Your task to perform on an android device: turn pop-ups off in chrome Image 0: 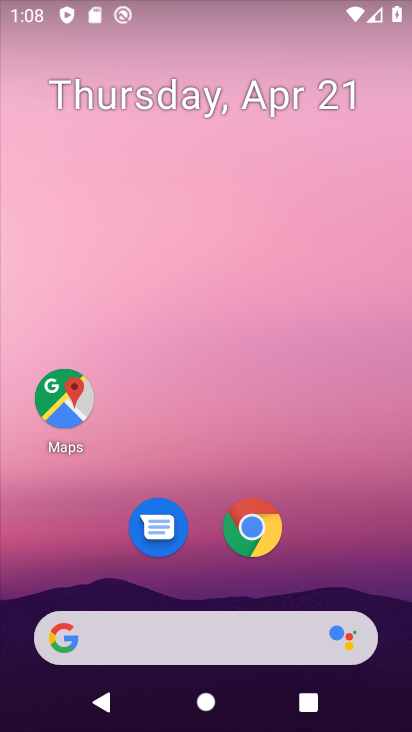
Step 0: drag from (333, 546) to (346, 171)
Your task to perform on an android device: turn pop-ups off in chrome Image 1: 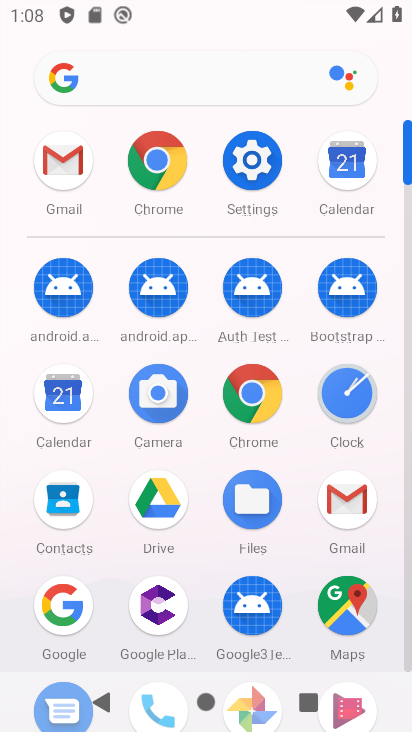
Step 1: click (258, 406)
Your task to perform on an android device: turn pop-ups off in chrome Image 2: 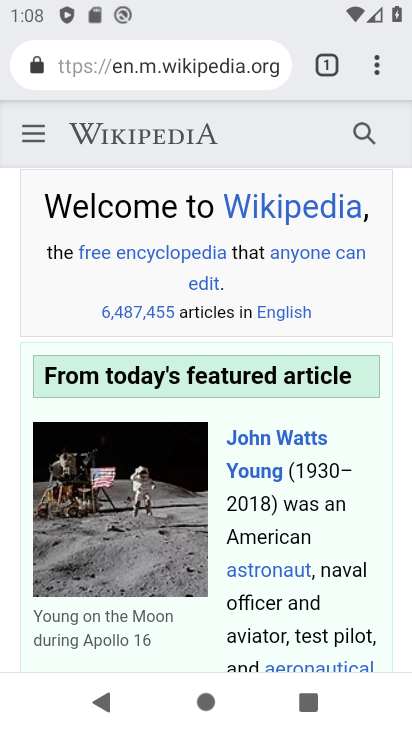
Step 2: click (376, 69)
Your task to perform on an android device: turn pop-ups off in chrome Image 3: 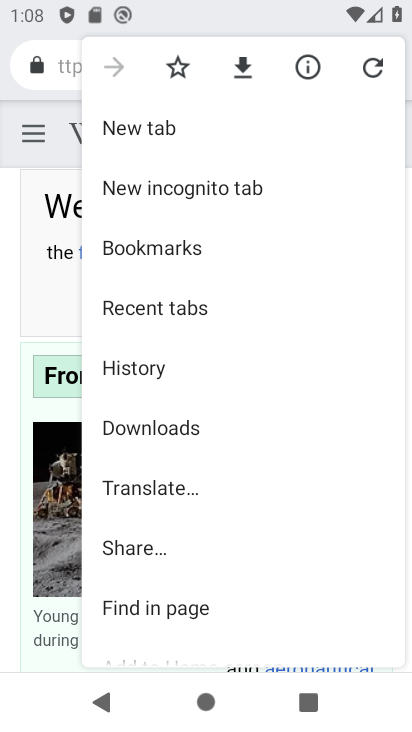
Step 3: drag from (332, 497) to (320, 369)
Your task to perform on an android device: turn pop-ups off in chrome Image 4: 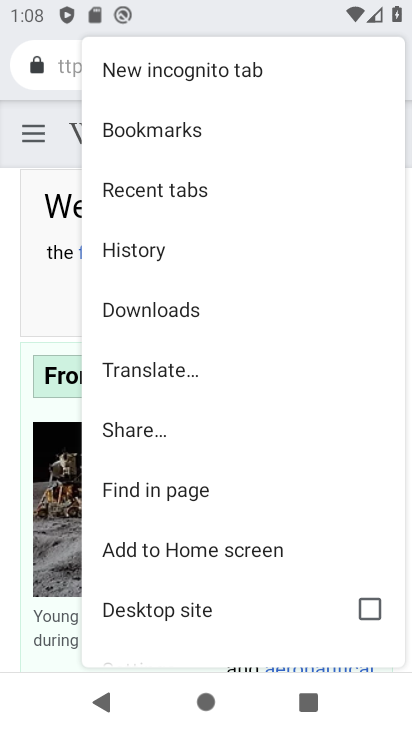
Step 4: drag from (326, 549) to (333, 394)
Your task to perform on an android device: turn pop-ups off in chrome Image 5: 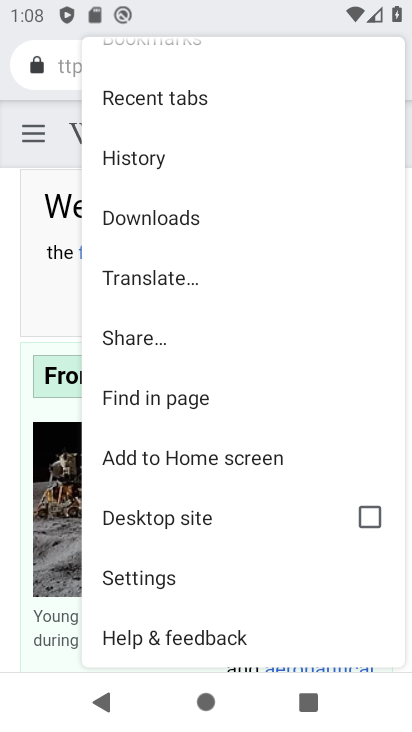
Step 5: click (164, 582)
Your task to perform on an android device: turn pop-ups off in chrome Image 6: 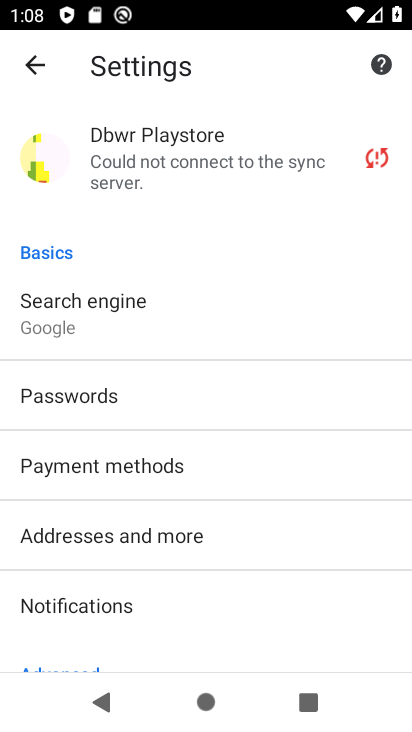
Step 6: drag from (286, 610) to (305, 478)
Your task to perform on an android device: turn pop-ups off in chrome Image 7: 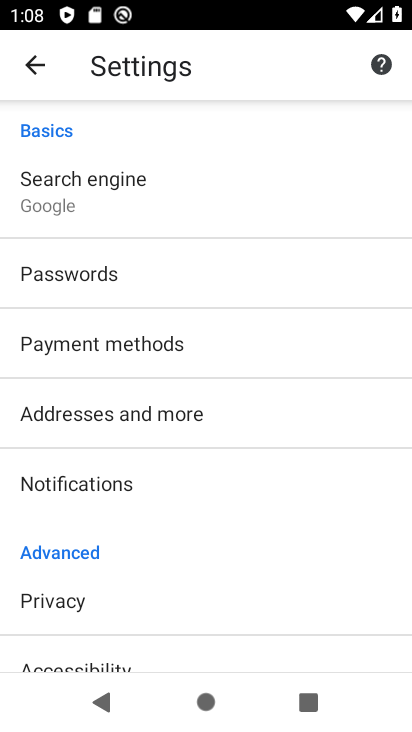
Step 7: drag from (315, 575) to (318, 414)
Your task to perform on an android device: turn pop-ups off in chrome Image 8: 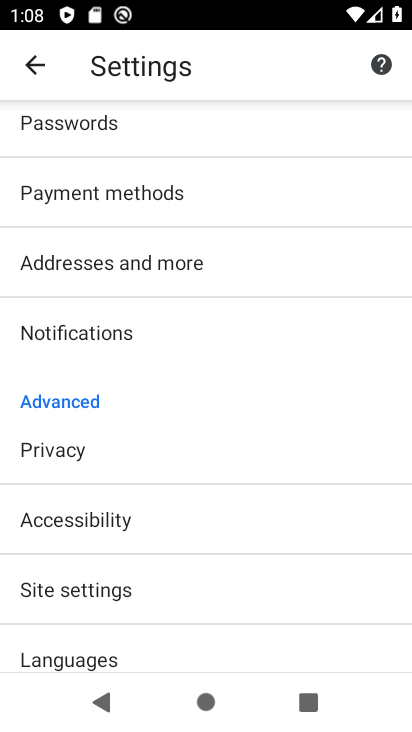
Step 8: drag from (310, 597) to (317, 442)
Your task to perform on an android device: turn pop-ups off in chrome Image 9: 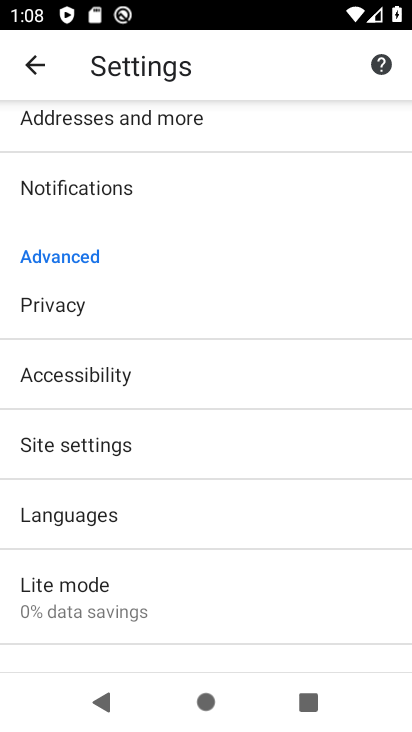
Step 9: drag from (313, 587) to (313, 455)
Your task to perform on an android device: turn pop-ups off in chrome Image 10: 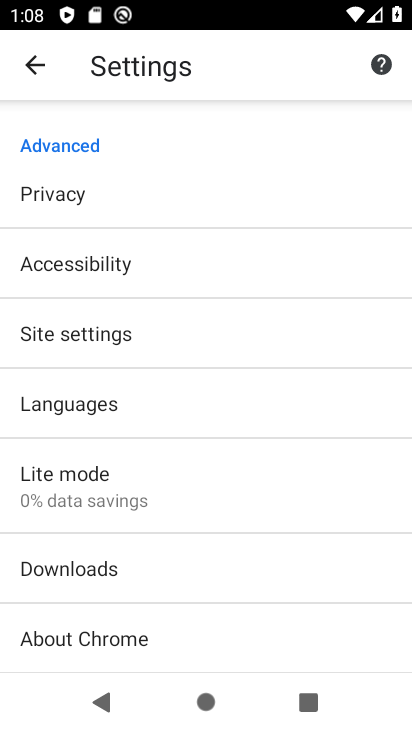
Step 10: drag from (304, 629) to (313, 397)
Your task to perform on an android device: turn pop-ups off in chrome Image 11: 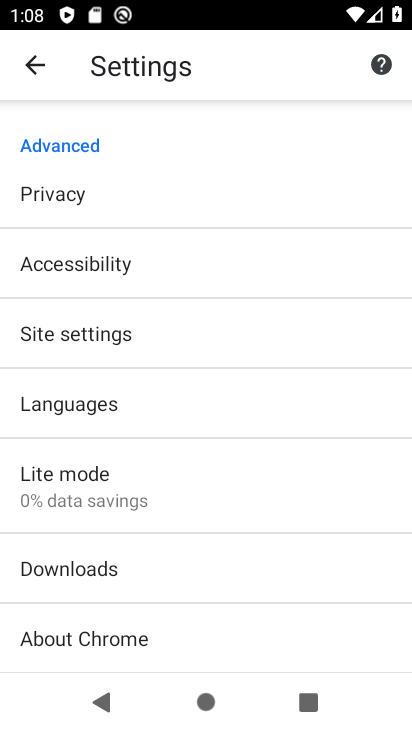
Step 11: drag from (306, 259) to (290, 415)
Your task to perform on an android device: turn pop-ups off in chrome Image 12: 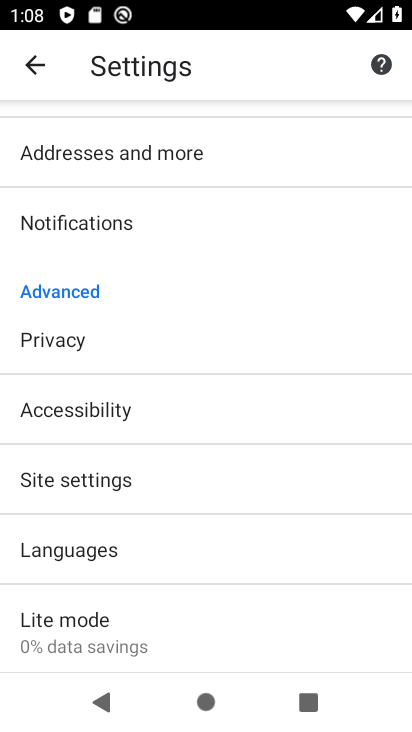
Step 12: drag from (273, 428) to (269, 512)
Your task to perform on an android device: turn pop-ups off in chrome Image 13: 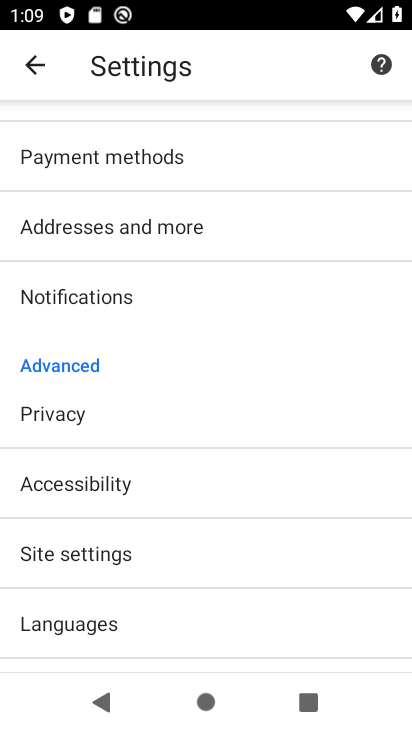
Step 13: drag from (295, 229) to (290, 491)
Your task to perform on an android device: turn pop-ups off in chrome Image 14: 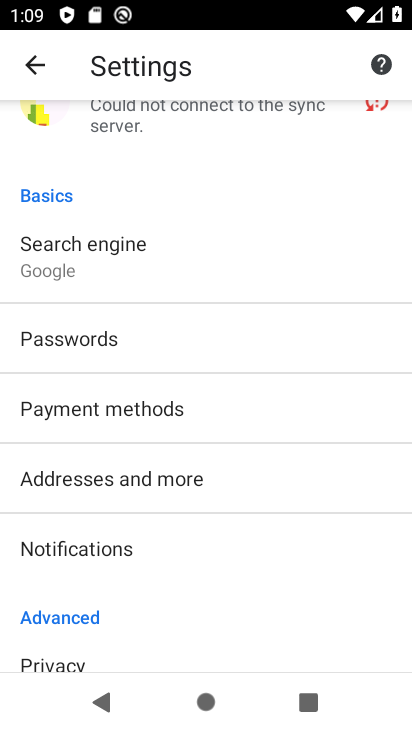
Step 14: drag from (283, 554) to (293, 279)
Your task to perform on an android device: turn pop-ups off in chrome Image 15: 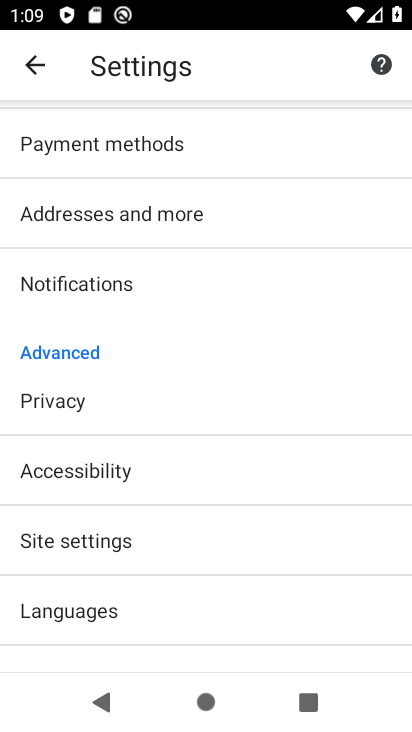
Step 15: drag from (294, 555) to (294, 378)
Your task to perform on an android device: turn pop-ups off in chrome Image 16: 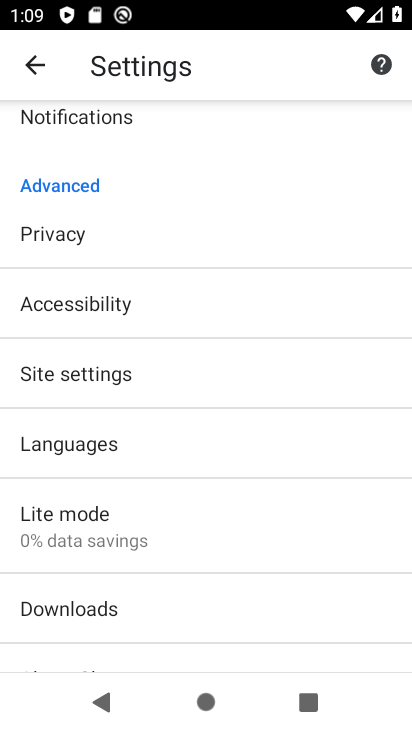
Step 16: click (265, 370)
Your task to perform on an android device: turn pop-ups off in chrome Image 17: 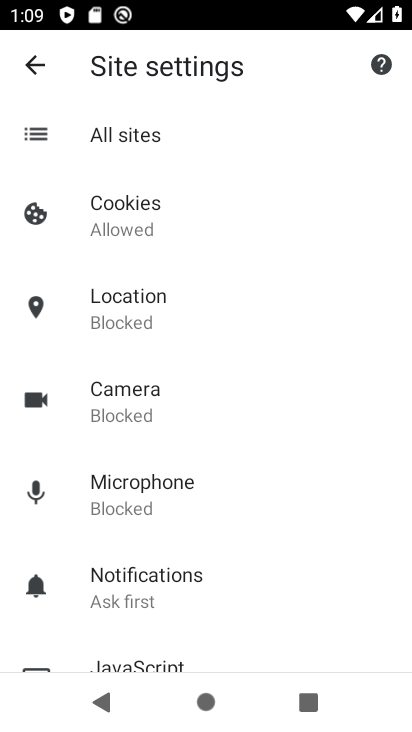
Step 17: drag from (305, 544) to (307, 354)
Your task to perform on an android device: turn pop-ups off in chrome Image 18: 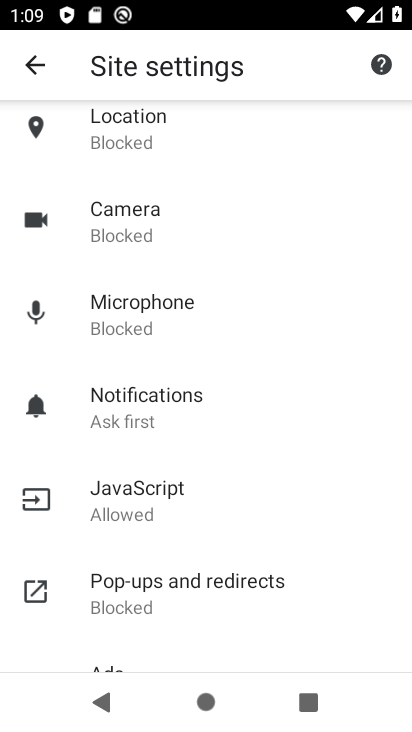
Step 18: drag from (324, 590) to (348, 395)
Your task to perform on an android device: turn pop-ups off in chrome Image 19: 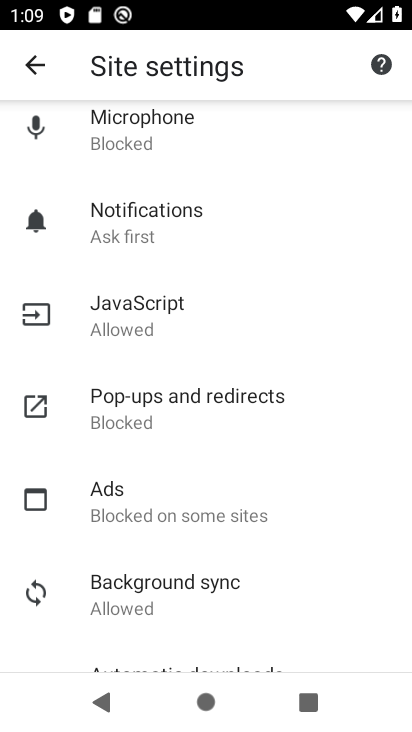
Step 19: click (182, 395)
Your task to perform on an android device: turn pop-ups off in chrome Image 20: 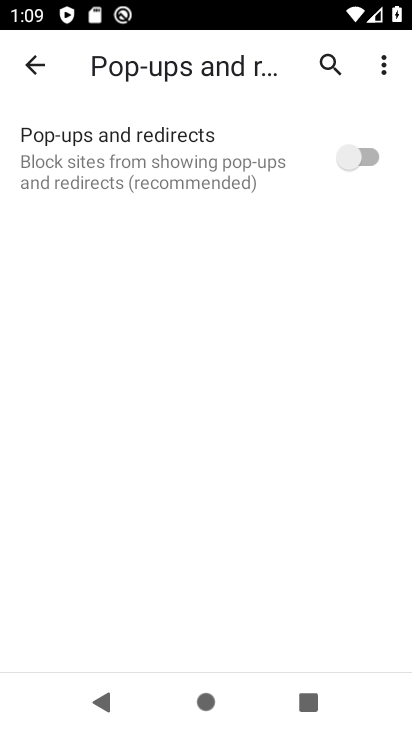
Step 20: task complete